Your task to perform on an android device: Check the weather Image 0: 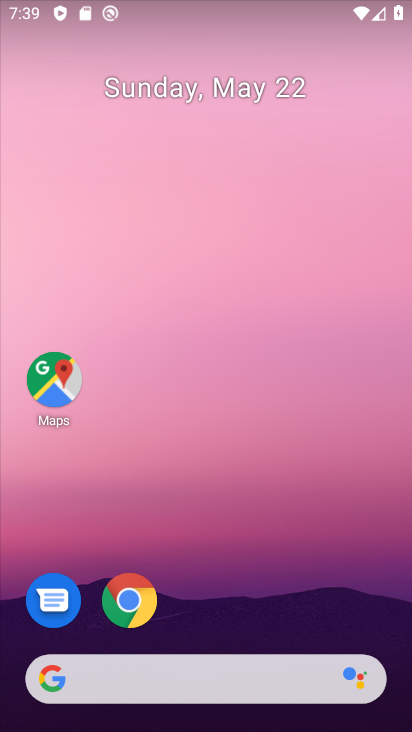
Step 0: drag from (198, 604) to (221, 363)
Your task to perform on an android device: Check the weather Image 1: 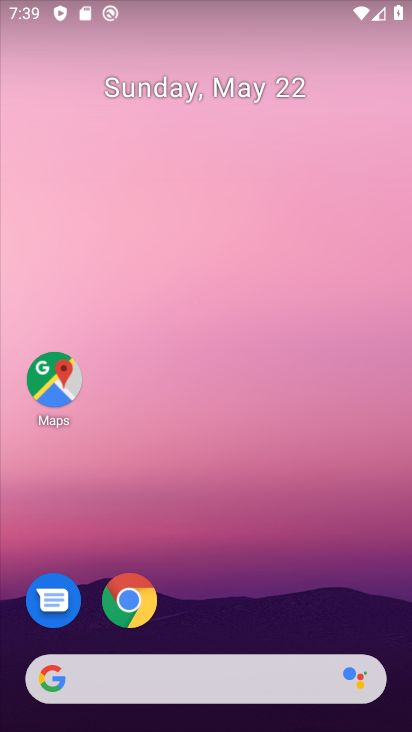
Step 1: drag from (246, 649) to (283, 290)
Your task to perform on an android device: Check the weather Image 2: 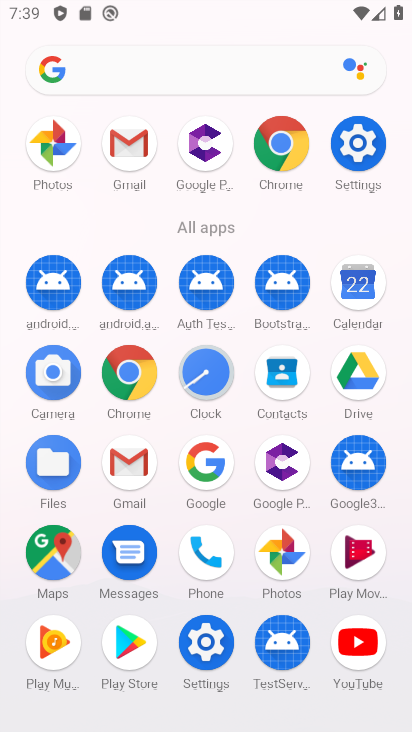
Step 2: click (218, 474)
Your task to perform on an android device: Check the weather Image 3: 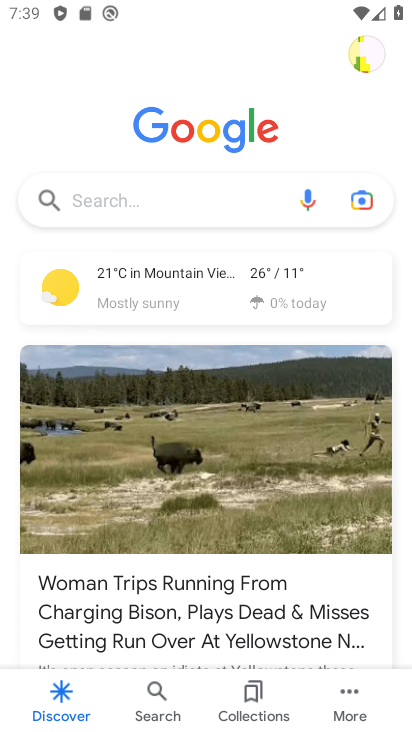
Step 3: click (164, 301)
Your task to perform on an android device: Check the weather Image 4: 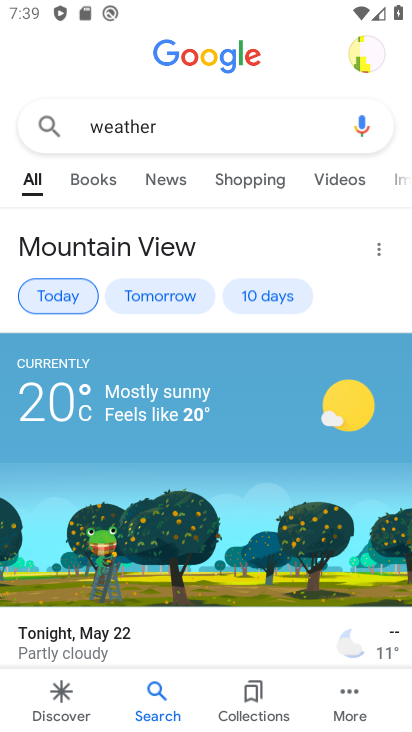
Step 4: task complete